Your task to perform on an android device: Go to wifi settings Image 0: 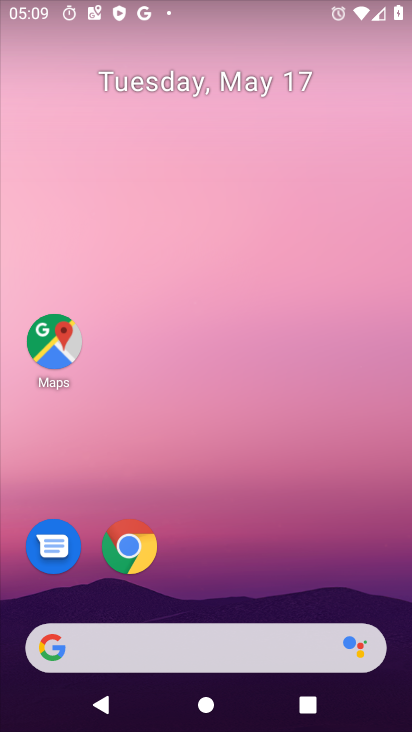
Step 0: drag from (401, 646) to (379, 250)
Your task to perform on an android device: Go to wifi settings Image 1: 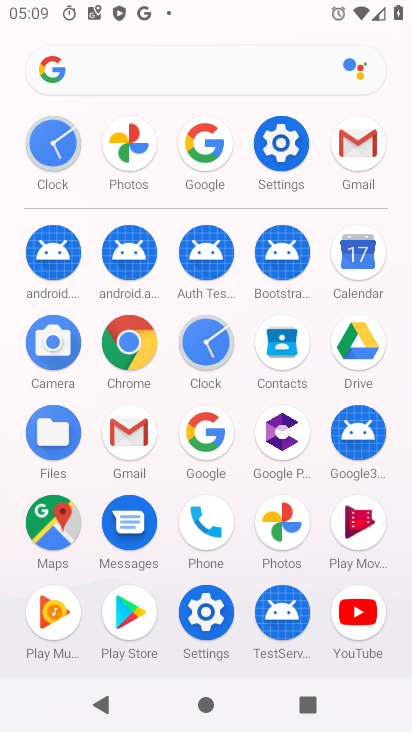
Step 1: click (290, 129)
Your task to perform on an android device: Go to wifi settings Image 2: 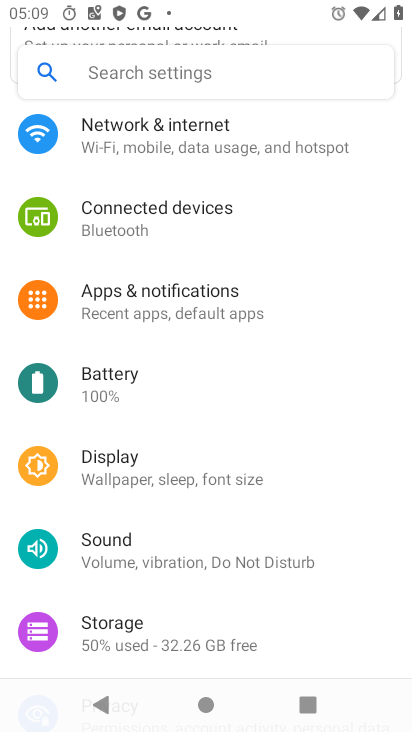
Step 2: click (197, 136)
Your task to perform on an android device: Go to wifi settings Image 3: 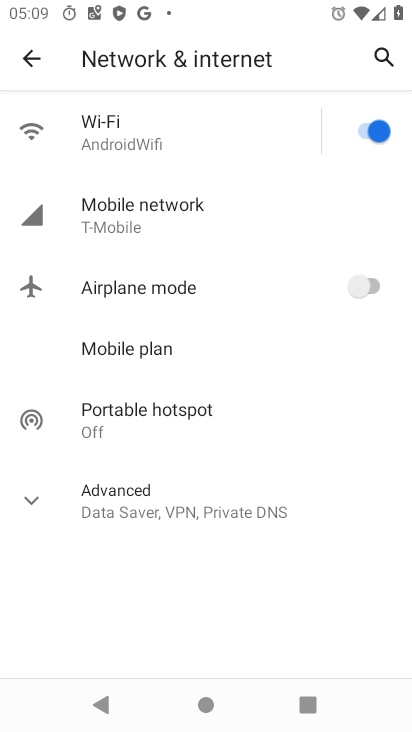
Step 3: click (248, 145)
Your task to perform on an android device: Go to wifi settings Image 4: 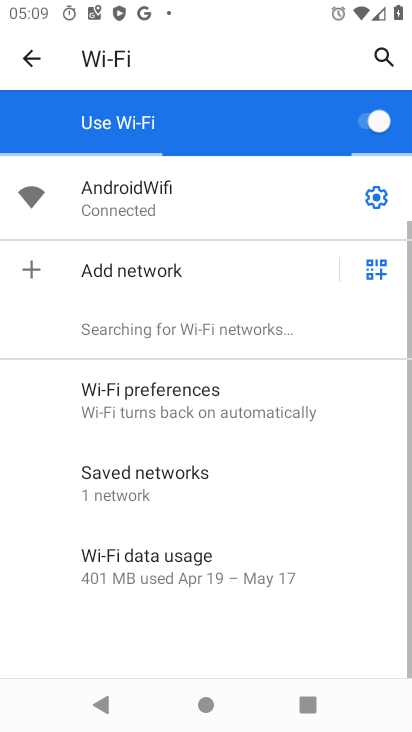
Step 4: click (381, 197)
Your task to perform on an android device: Go to wifi settings Image 5: 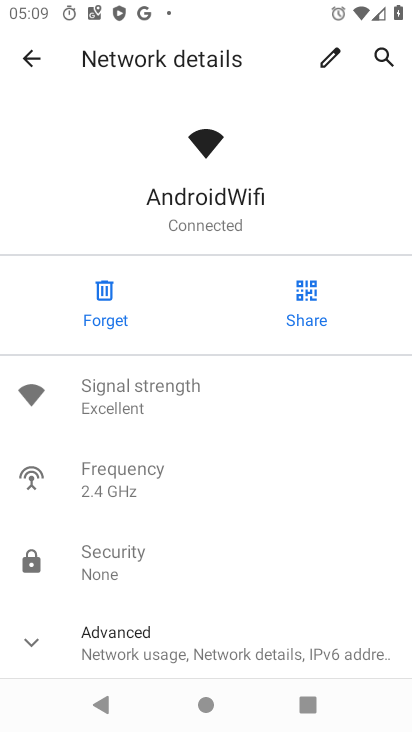
Step 5: task complete